Your task to perform on an android device: change keyboard looks Image 0: 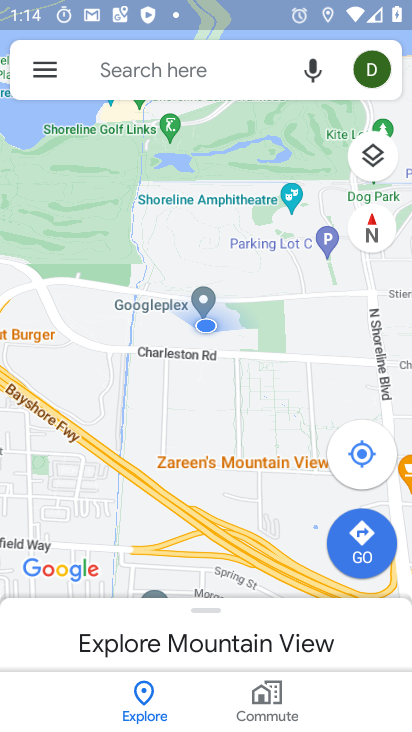
Step 0: press home button
Your task to perform on an android device: change keyboard looks Image 1: 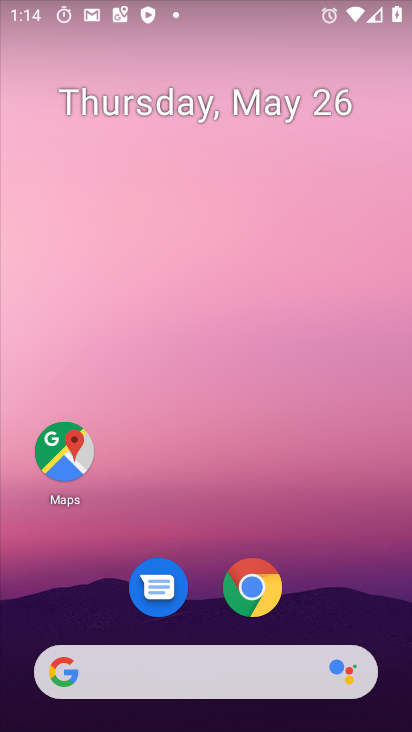
Step 1: drag from (239, 682) to (357, 198)
Your task to perform on an android device: change keyboard looks Image 2: 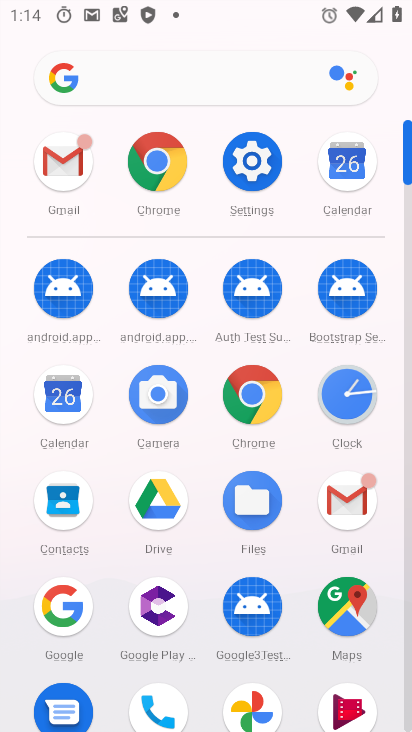
Step 2: click (245, 178)
Your task to perform on an android device: change keyboard looks Image 3: 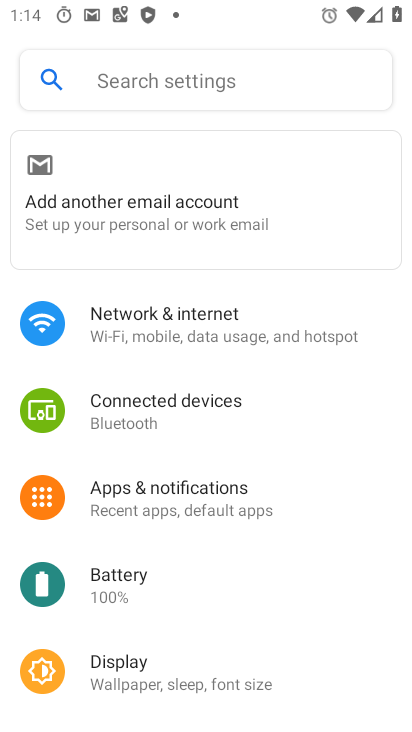
Step 3: click (190, 79)
Your task to perform on an android device: change keyboard looks Image 4: 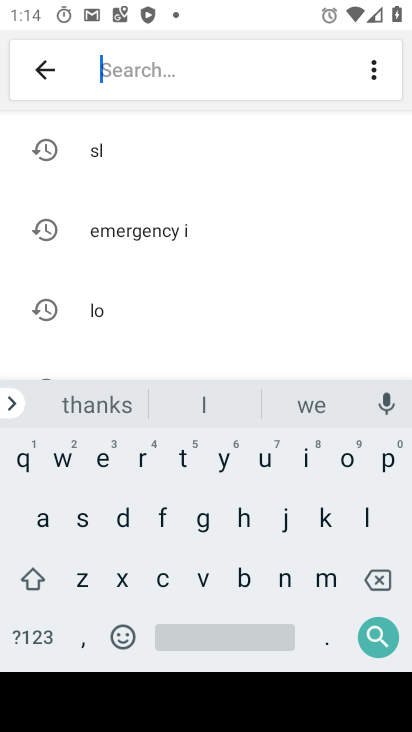
Step 4: click (320, 514)
Your task to perform on an android device: change keyboard looks Image 5: 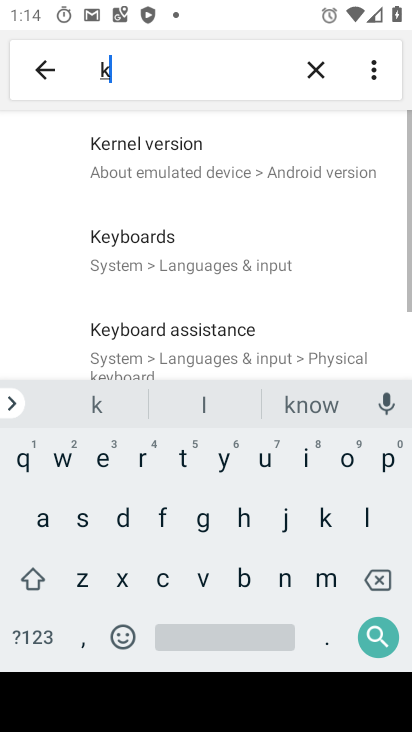
Step 5: click (99, 454)
Your task to perform on an android device: change keyboard looks Image 6: 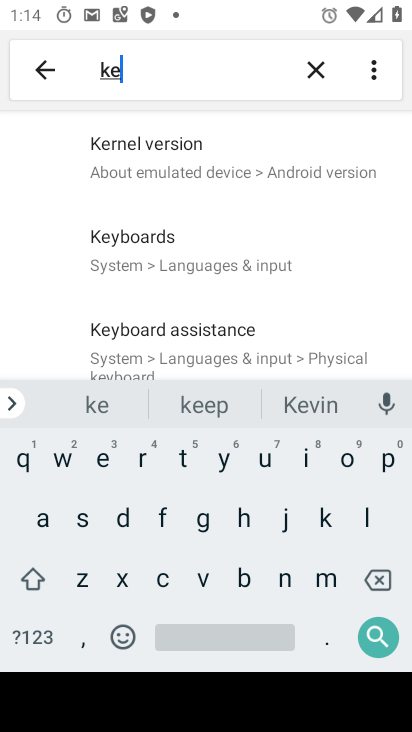
Step 6: click (138, 241)
Your task to perform on an android device: change keyboard looks Image 7: 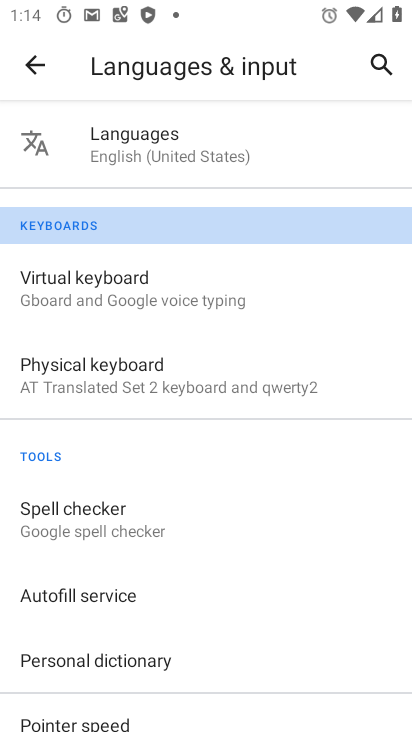
Step 7: click (107, 281)
Your task to perform on an android device: change keyboard looks Image 8: 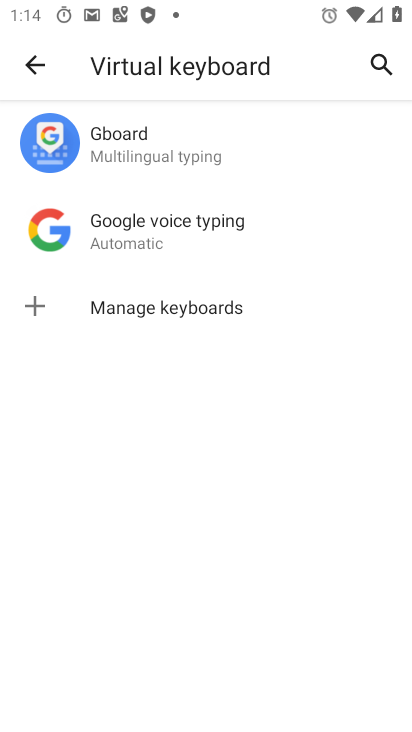
Step 8: click (150, 156)
Your task to perform on an android device: change keyboard looks Image 9: 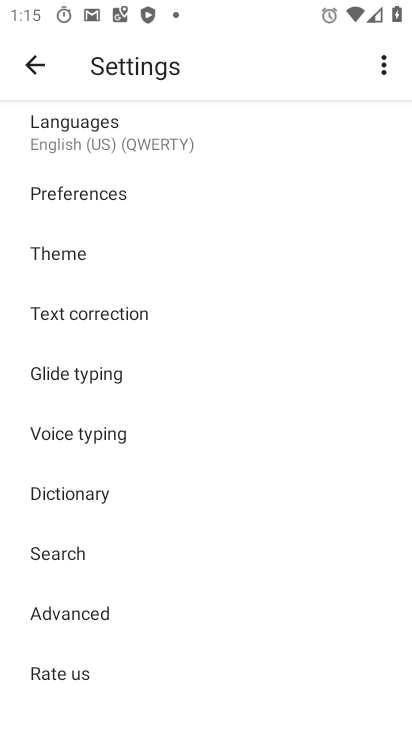
Step 9: click (110, 259)
Your task to perform on an android device: change keyboard looks Image 10: 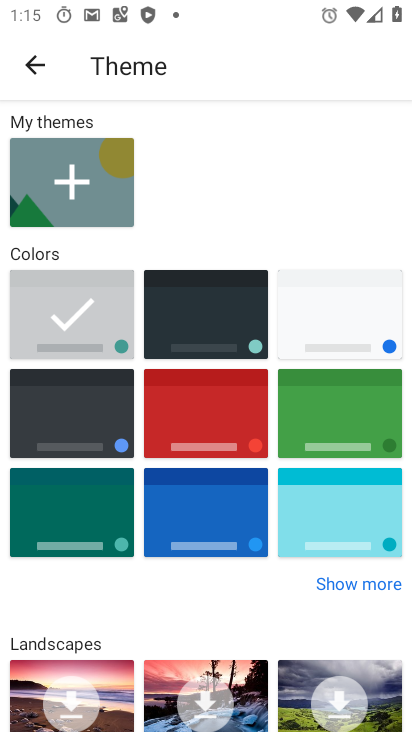
Step 10: click (70, 415)
Your task to perform on an android device: change keyboard looks Image 11: 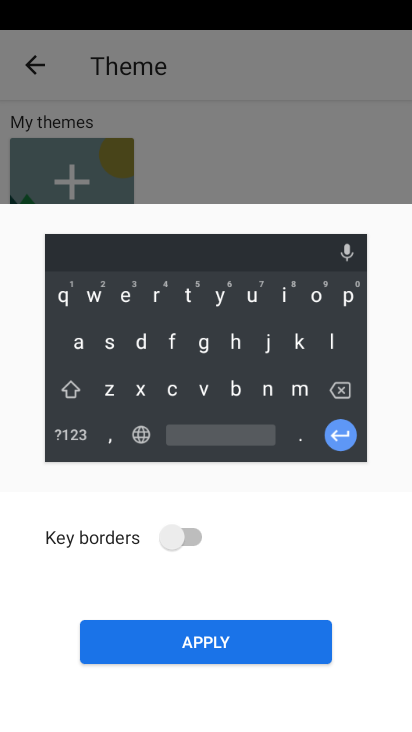
Step 11: click (173, 540)
Your task to perform on an android device: change keyboard looks Image 12: 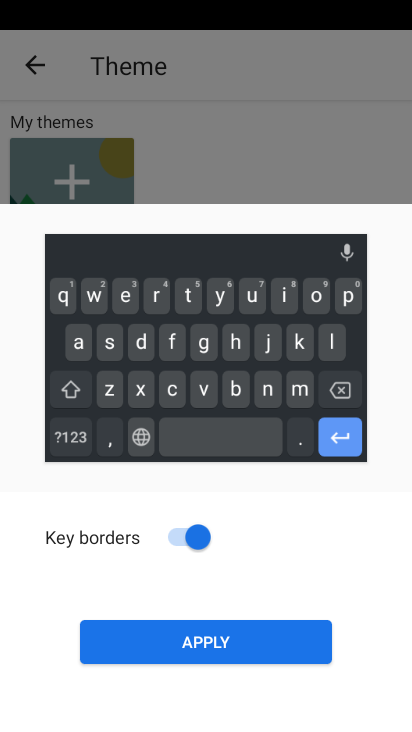
Step 12: click (204, 618)
Your task to perform on an android device: change keyboard looks Image 13: 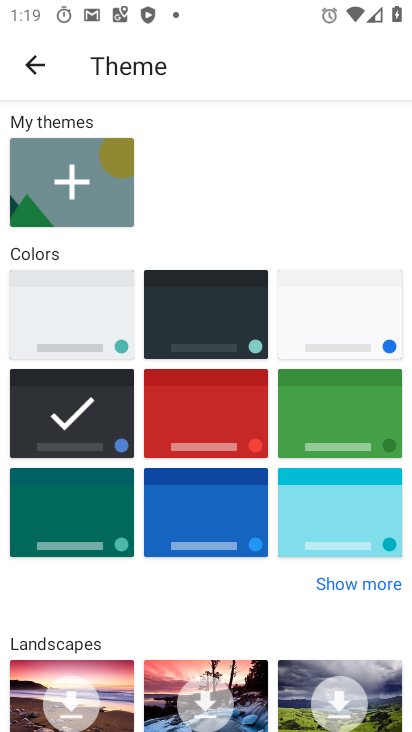
Step 13: task complete